Your task to perform on an android device: choose inbox layout in the gmail app Image 0: 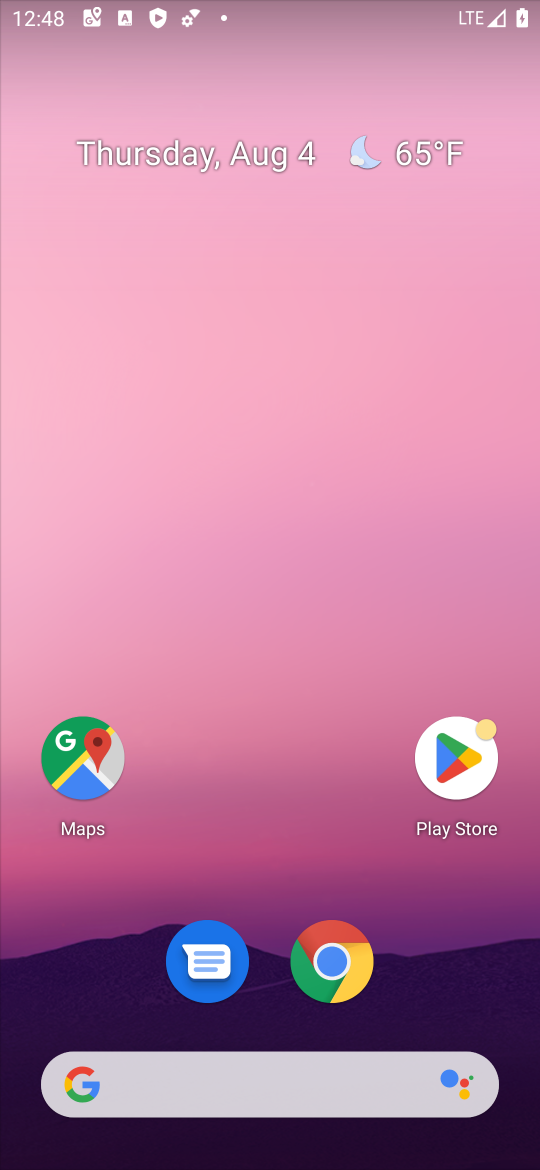
Step 0: drag from (254, 529) to (174, 0)
Your task to perform on an android device: choose inbox layout in the gmail app Image 1: 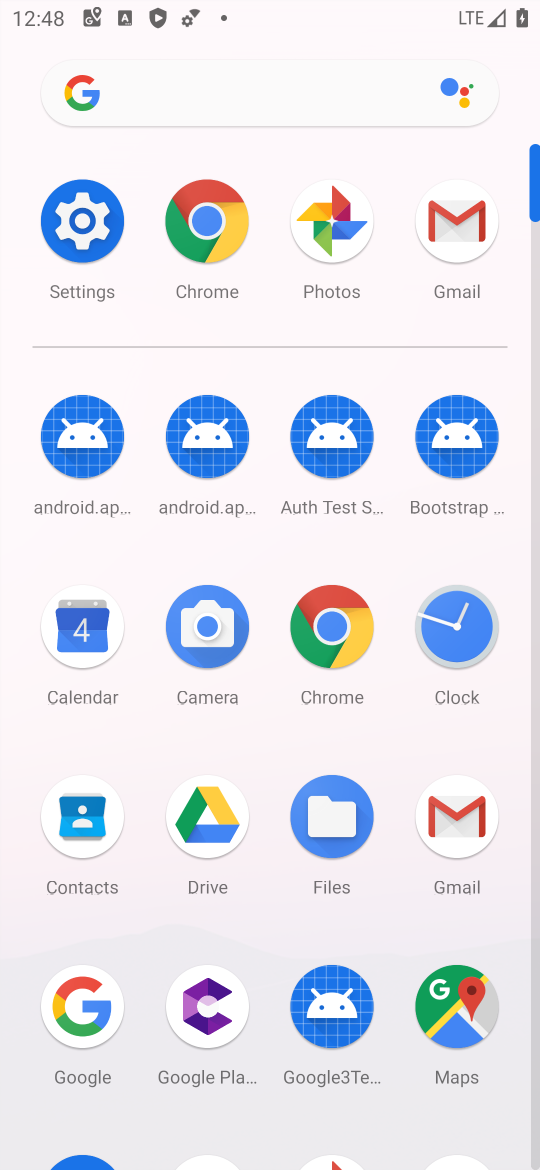
Step 1: click (455, 223)
Your task to perform on an android device: choose inbox layout in the gmail app Image 2: 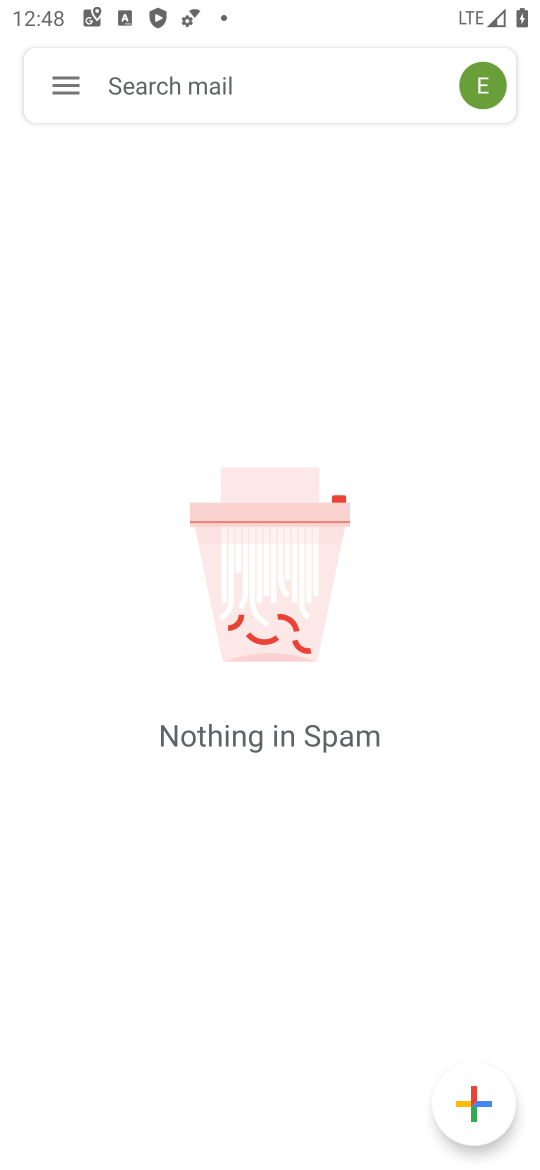
Step 2: click (70, 82)
Your task to perform on an android device: choose inbox layout in the gmail app Image 3: 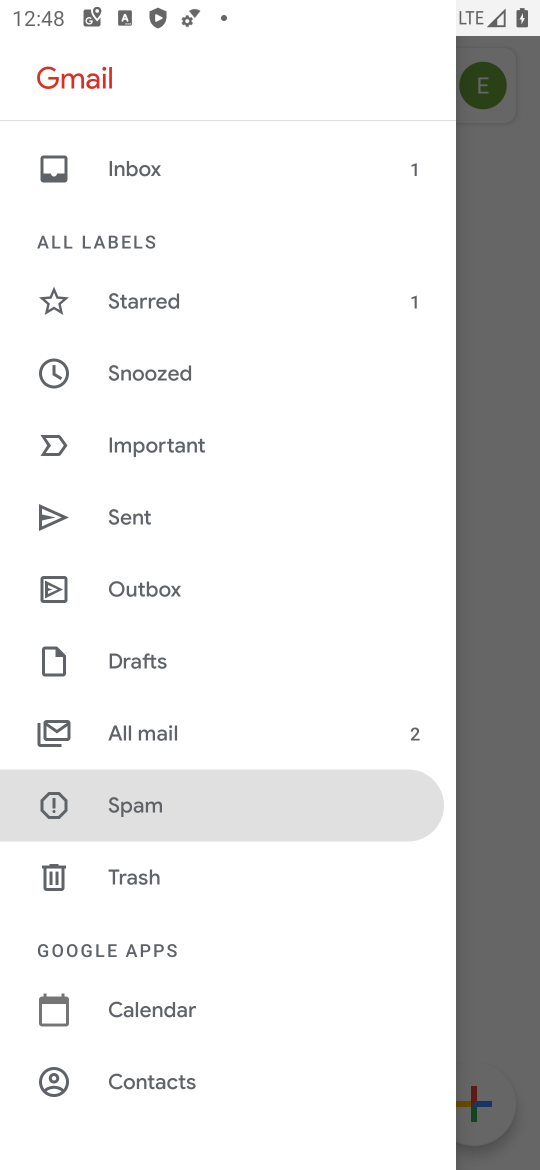
Step 3: drag from (278, 749) to (310, 503)
Your task to perform on an android device: choose inbox layout in the gmail app Image 4: 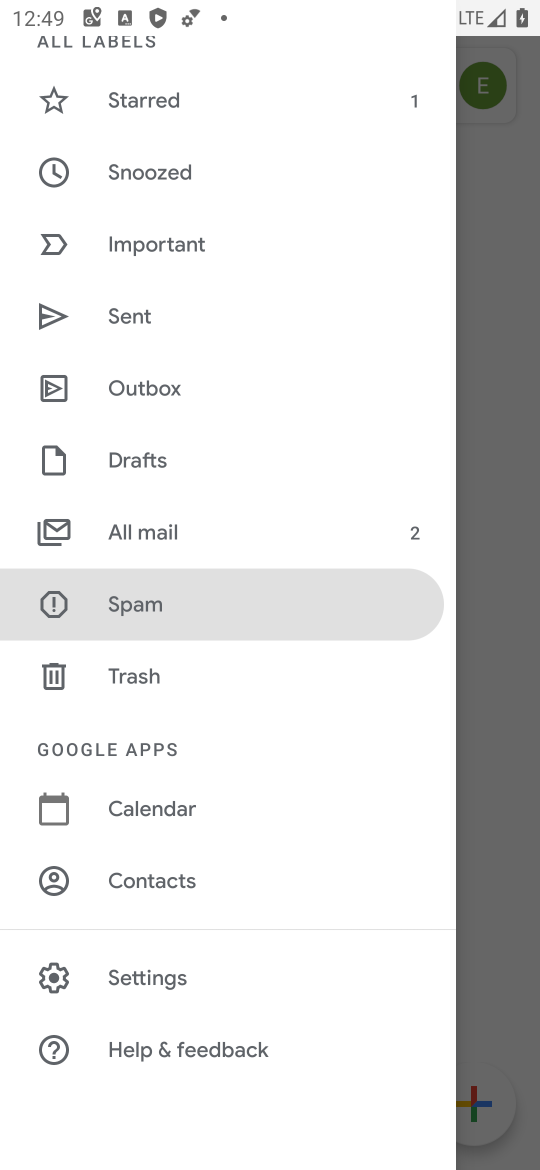
Step 4: click (171, 967)
Your task to perform on an android device: choose inbox layout in the gmail app Image 5: 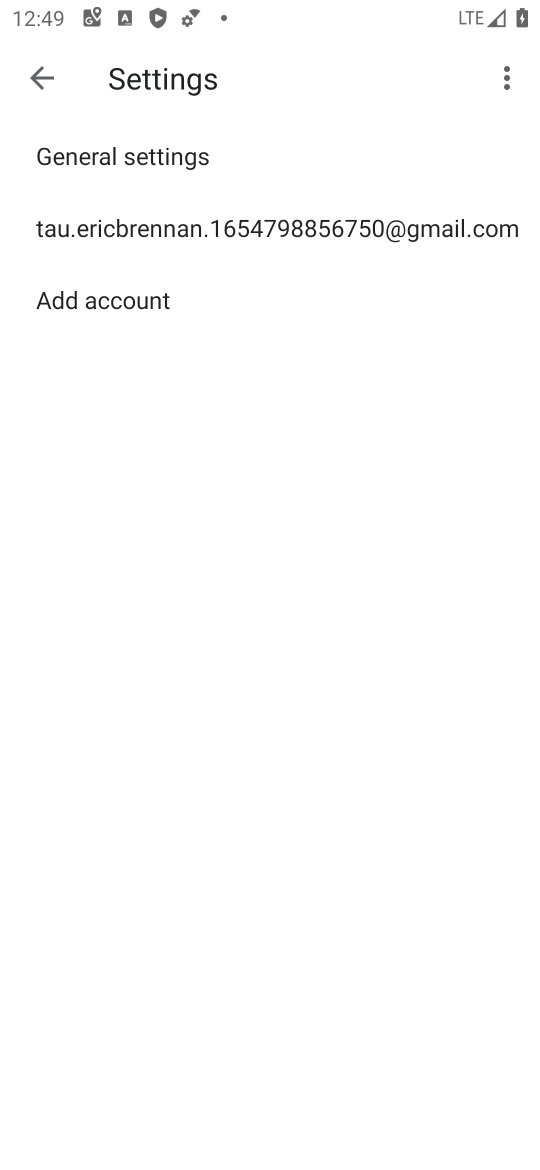
Step 5: click (265, 229)
Your task to perform on an android device: choose inbox layout in the gmail app Image 6: 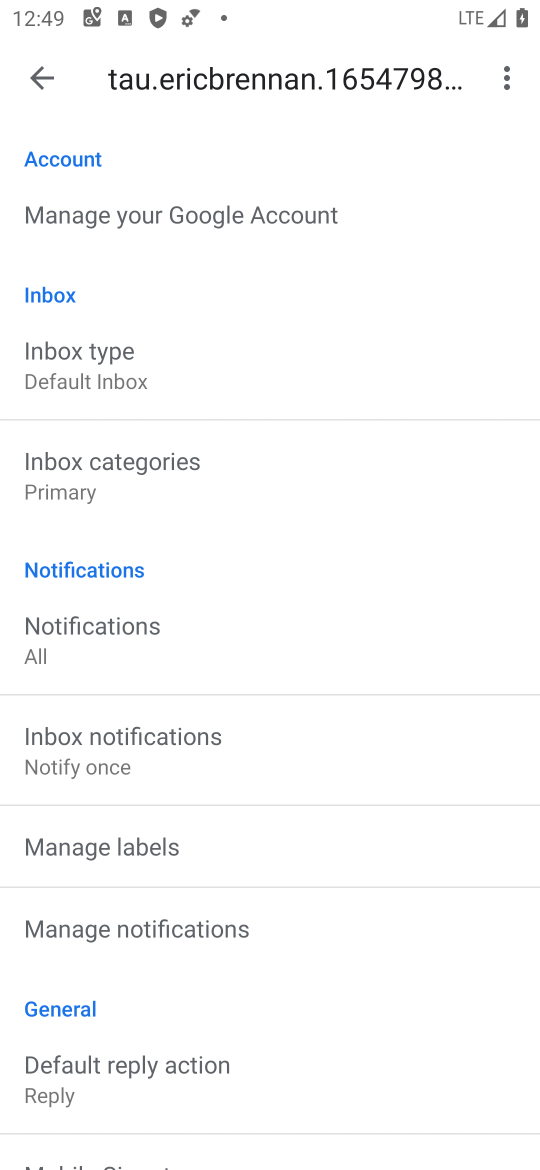
Step 6: click (108, 344)
Your task to perform on an android device: choose inbox layout in the gmail app Image 7: 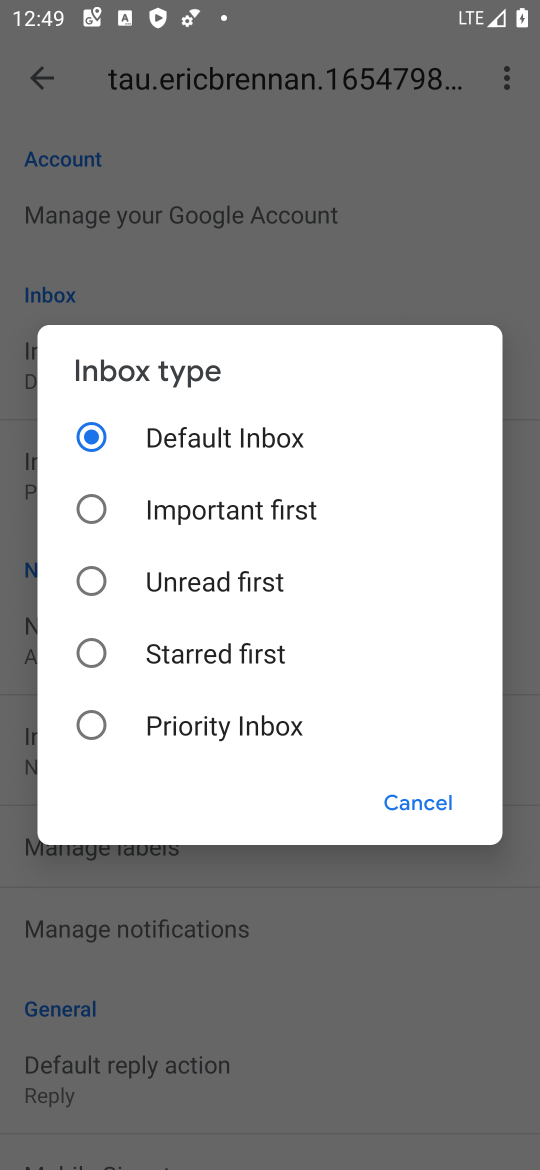
Step 7: click (91, 504)
Your task to perform on an android device: choose inbox layout in the gmail app Image 8: 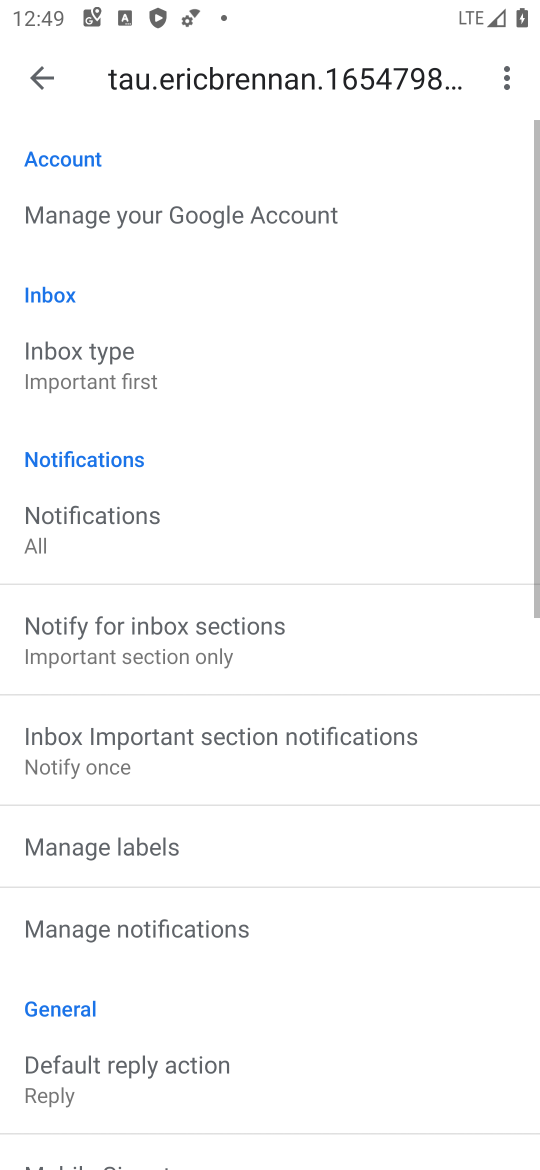
Step 8: task complete